Your task to perform on an android device: uninstall "LinkedIn" Image 0: 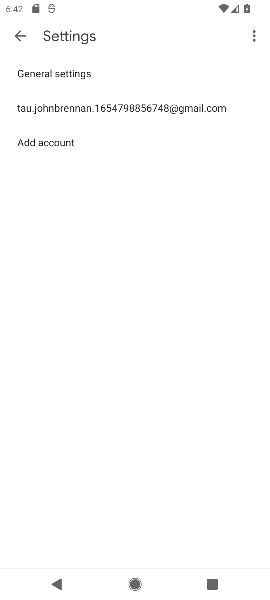
Step 0: press home button
Your task to perform on an android device: uninstall "LinkedIn" Image 1: 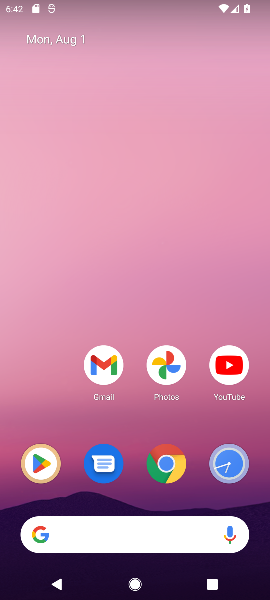
Step 1: drag from (129, 499) to (128, 59)
Your task to perform on an android device: uninstall "LinkedIn" Image 2: 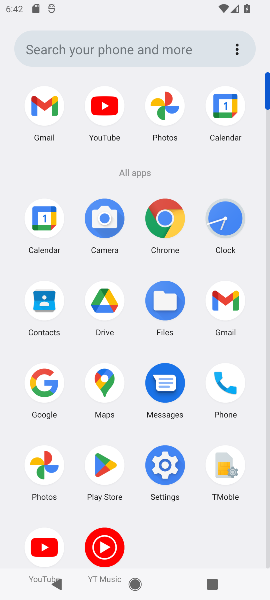
Step 2: click (266, 557)
Your task to perform on an android device: uninstall "LinkedIn" Image 3: 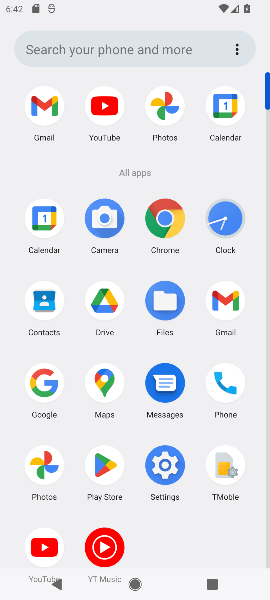
Step 3: click (266, 557)
Your task to perform on an android device: uninstall "LinkedIn" Image 4: 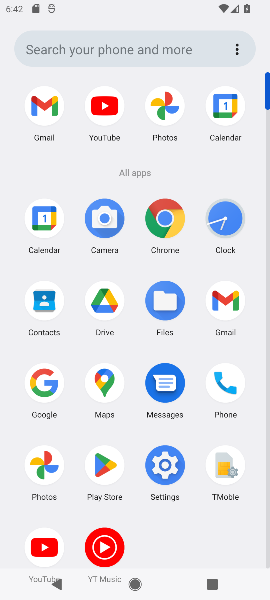
Step 4: click (266, 557)
Your task to perform on an android device: uninstall "LinkedIn" Image 5: 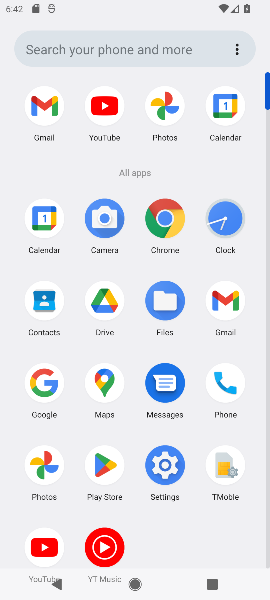
Step 5: drag from (267, 103) to (255, 421)
Your task to perform on an android device: uninstall "LinkedIn" Image 6: 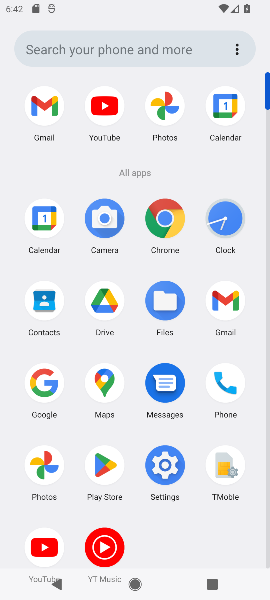
Step 6: click (268, 421)
Your task to perform on an android device: uninstall "LinkedIn" Image 7: 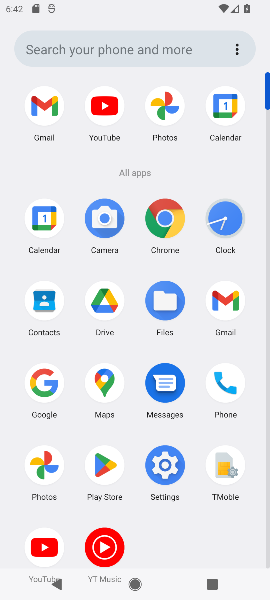
Step 7: click (268, 421)
Your task to perform on an android device: uninstall "LinkedIn" Image 8: 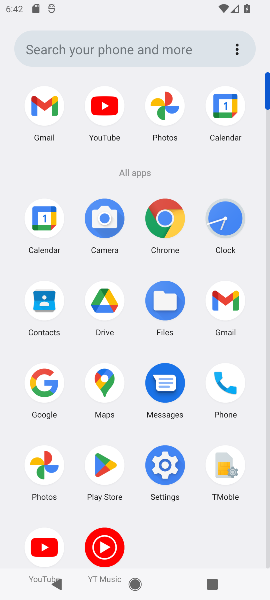
Step 8: task complete